Your task to perform on an android device: Show me the alarms in the clock app Image 0: 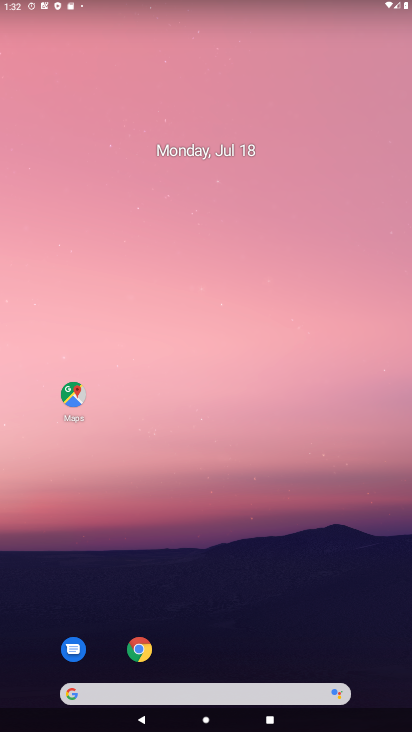
Step 0: drag from (214, 655) to (210, 54)
Your task to perform on an android device: Show me the alarms in the clock app Image 1: 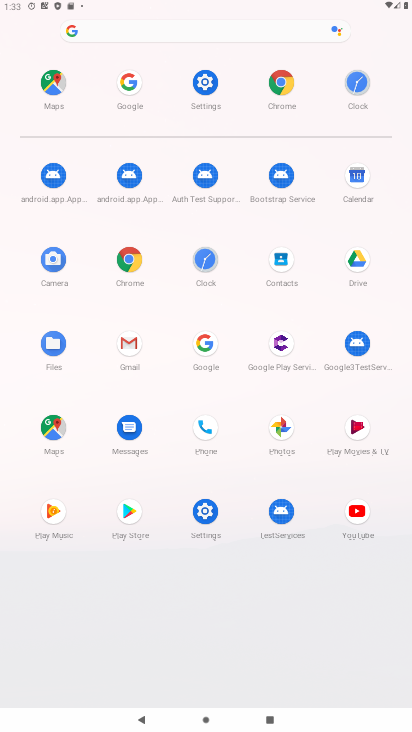
Step 1: click (201, 265)
Your task to perform on an android device: Show me the alarms in the clock app Image 2: 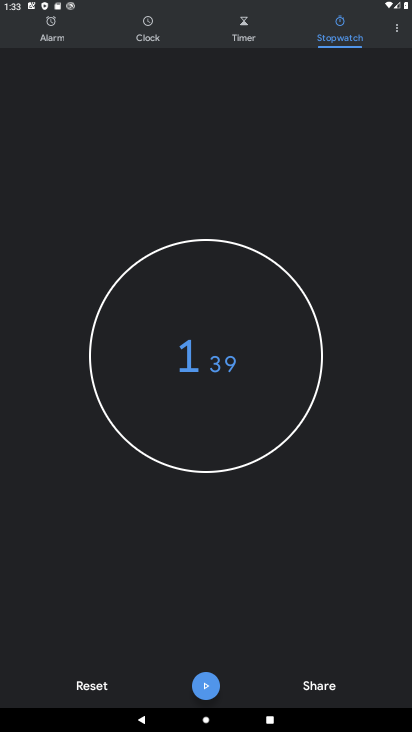
Step 2: click (62, 28)
Your task to perform on an android device: Show me the alarms in the clock app Image 3: 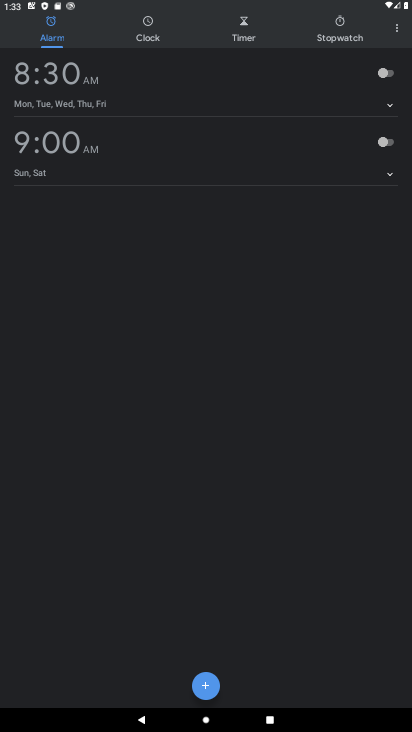
Step 3: click (203, 681)
Your task to perform on an android device: Show me the alarms in the clock app Image 4: 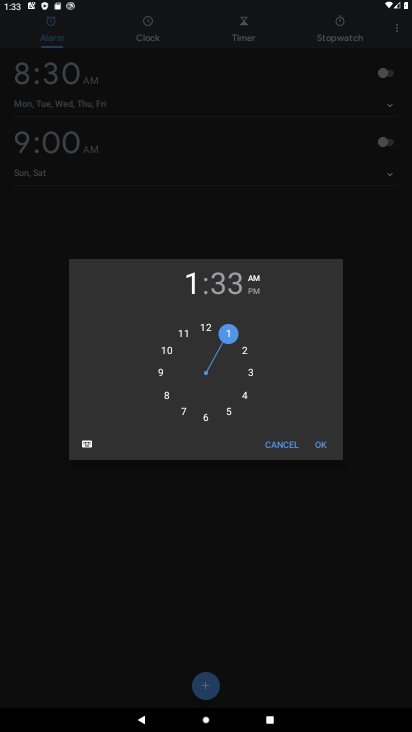
Step 4: click (319, 441)
Your task to perform on an android device: Show me the alarms in the clock app Image 5: 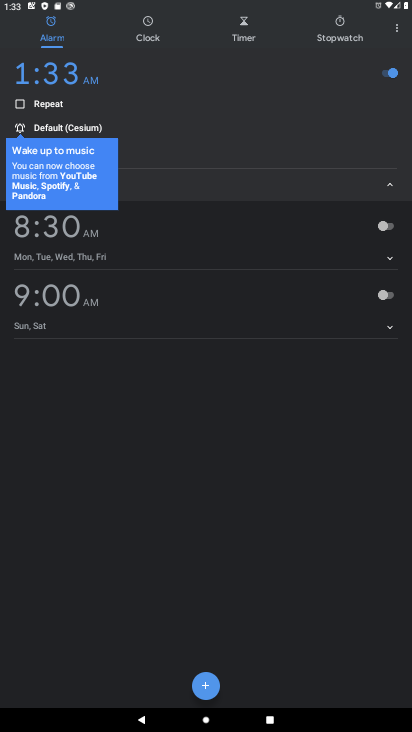
Step 5: task complete